Your task to perform on an android device: Open wifi settings Image 0: 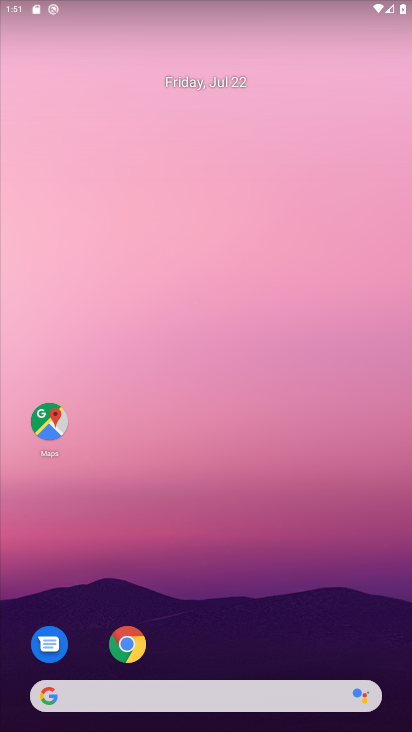
Step 0: drag from (274, 658) to (256, 1)
Your task to perform on an android device: Open wifi settings Image 1: 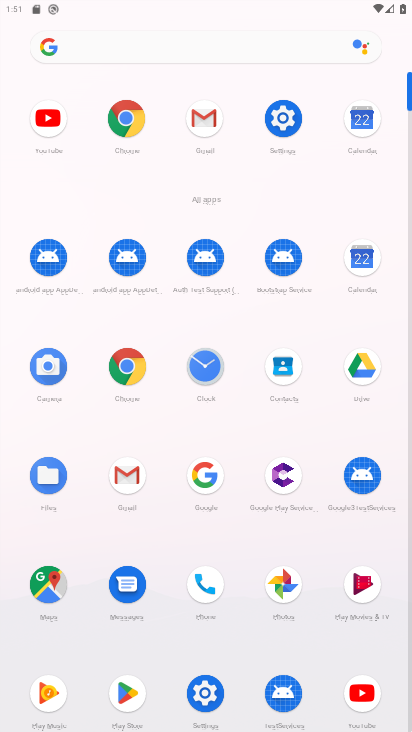
Step 1: click (294, 108)
Your task to perform on an android device: Open wifi settings Image 2: 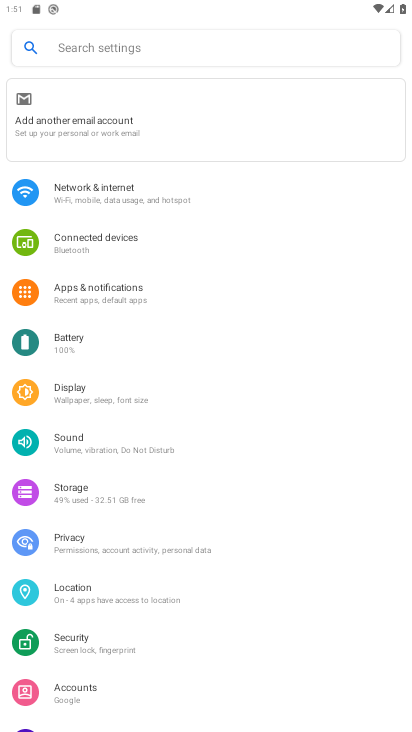
Step 2: click (145, 189)
Your task to perform on an android device: Open wifi settings Image 3: 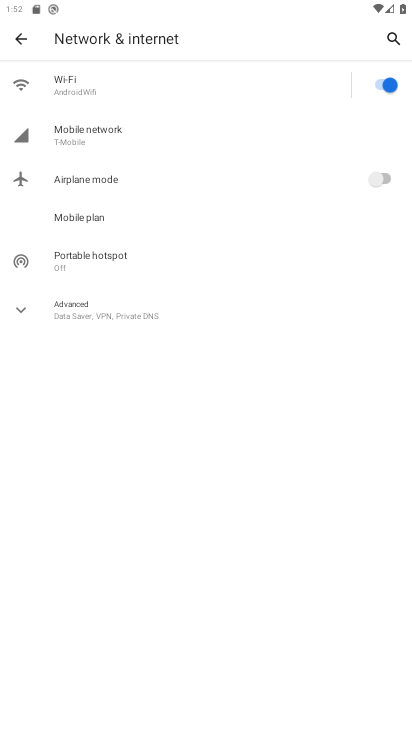
Step 3: click (108, 85)
Your task to perform on an android device: Open wifi settings Image 4: 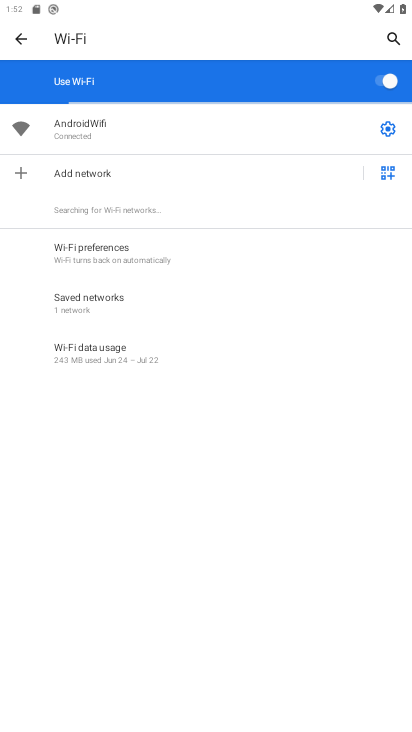
Step 4: task complete